Your task to perform on an android device: open a new tab in the chrome app Image 0: 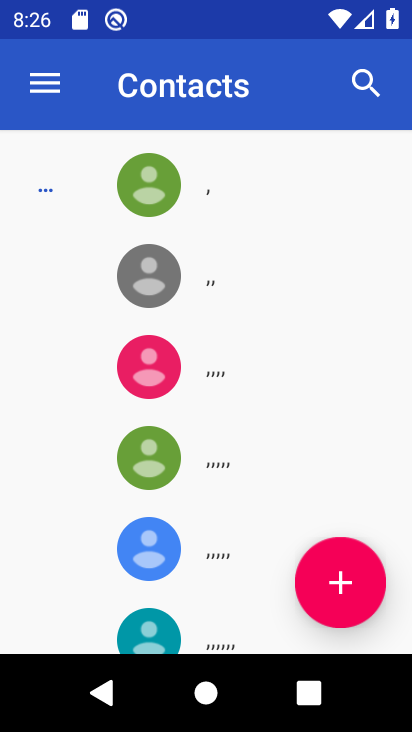
Step 0: press home button
Your task to perform on an android device: open a new tab in the chrome app Image 1: 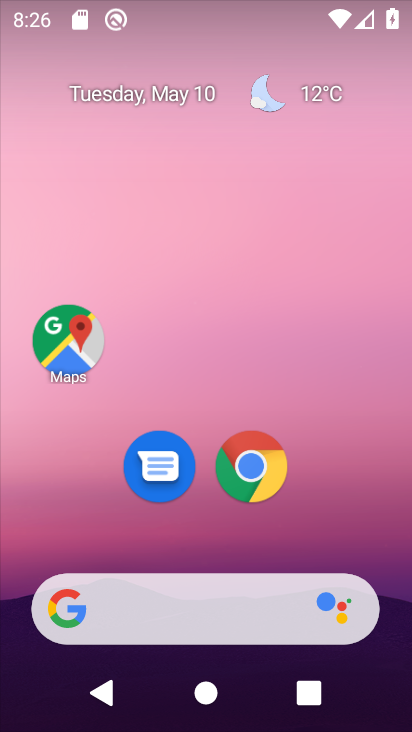
Step 1: click (259, 481)
Your task to perform on an android device: open a new tab in the chrome app Image 2: 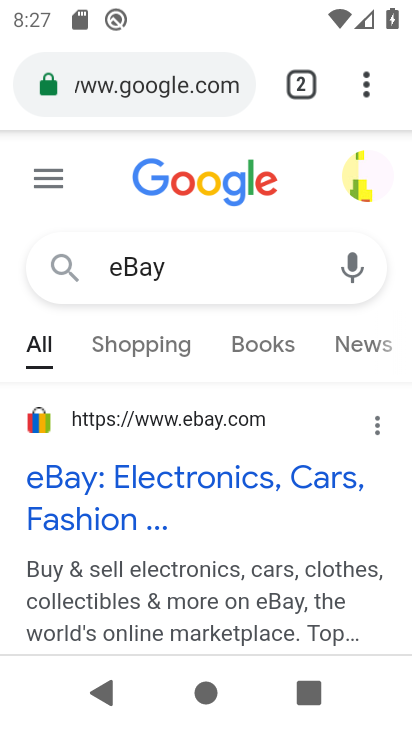
Step 2: click (370, 89)
Your task to perform on an android device: open a new tab in the chrome app Image 3: 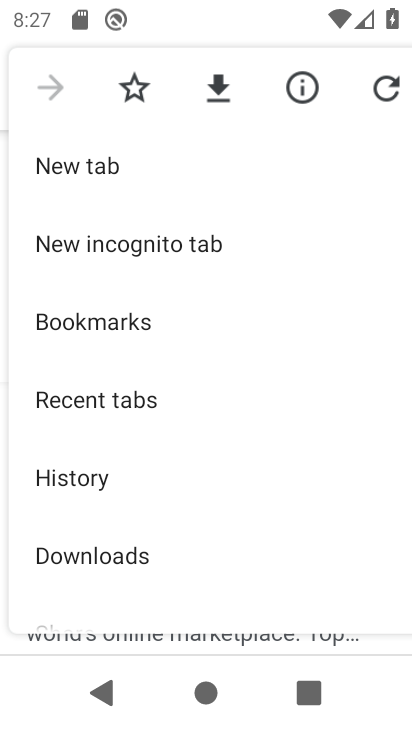
Step 3: click (101, 172)
Your task to perform on an android device: open a new tab in the chrome app Image 4: 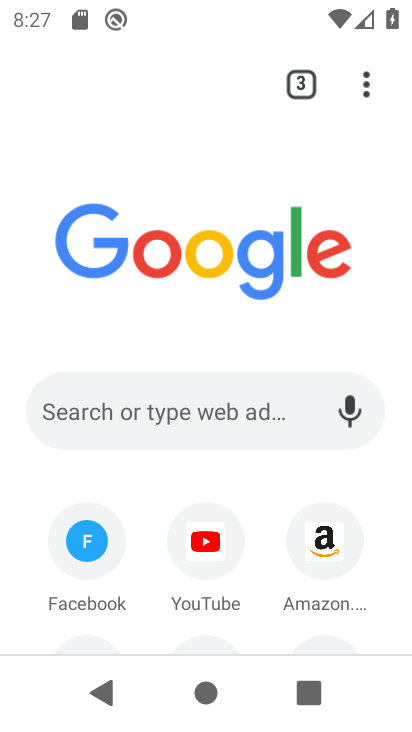
Step 4: task complete